Your task to perform on an android device: open a new tab in the chrome app Image 0: 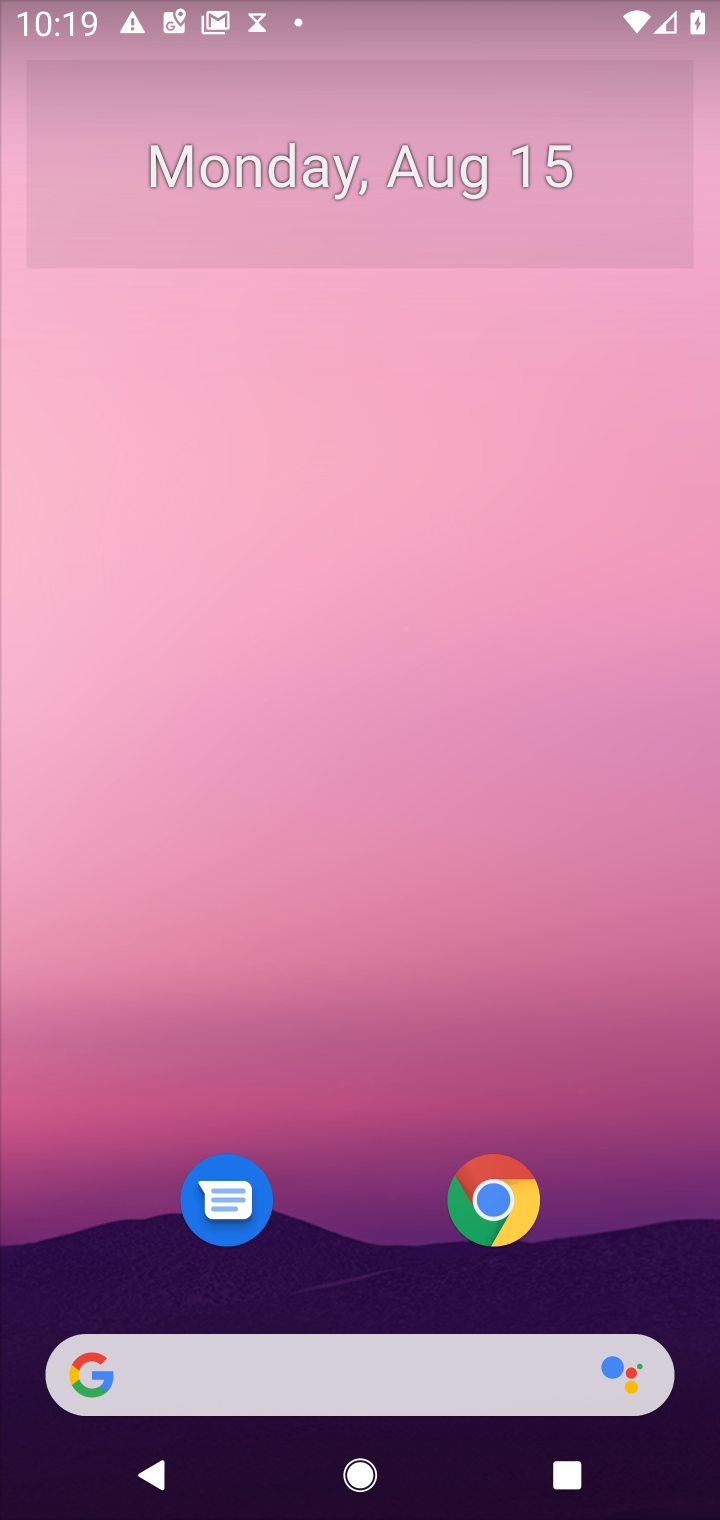
Step 0: click (488, 1207)
Your task to perform on an android device: open a new tab in the chrome app Image 1: 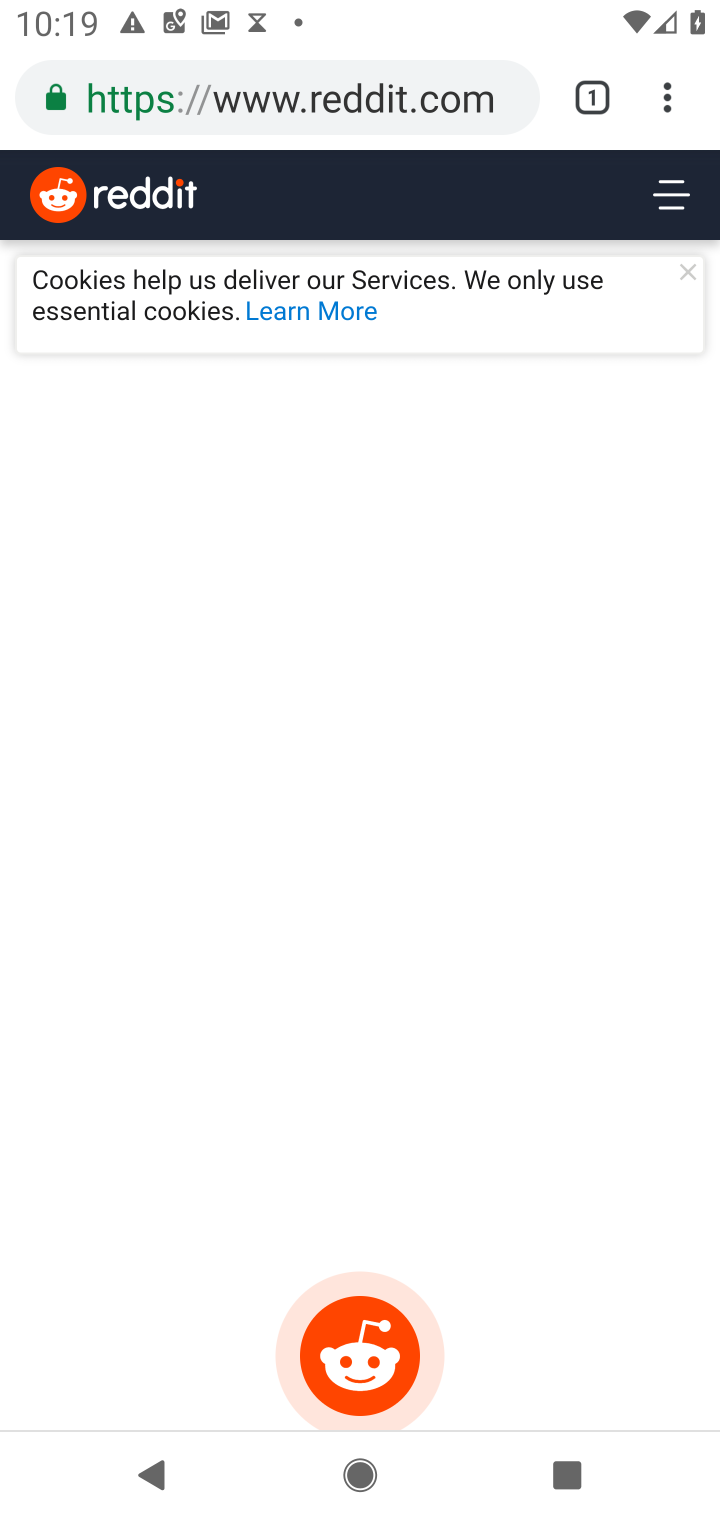
Step 1: click (573, 102)
Your task to perform on an android device: open a new tab in the chrome app Image 2: 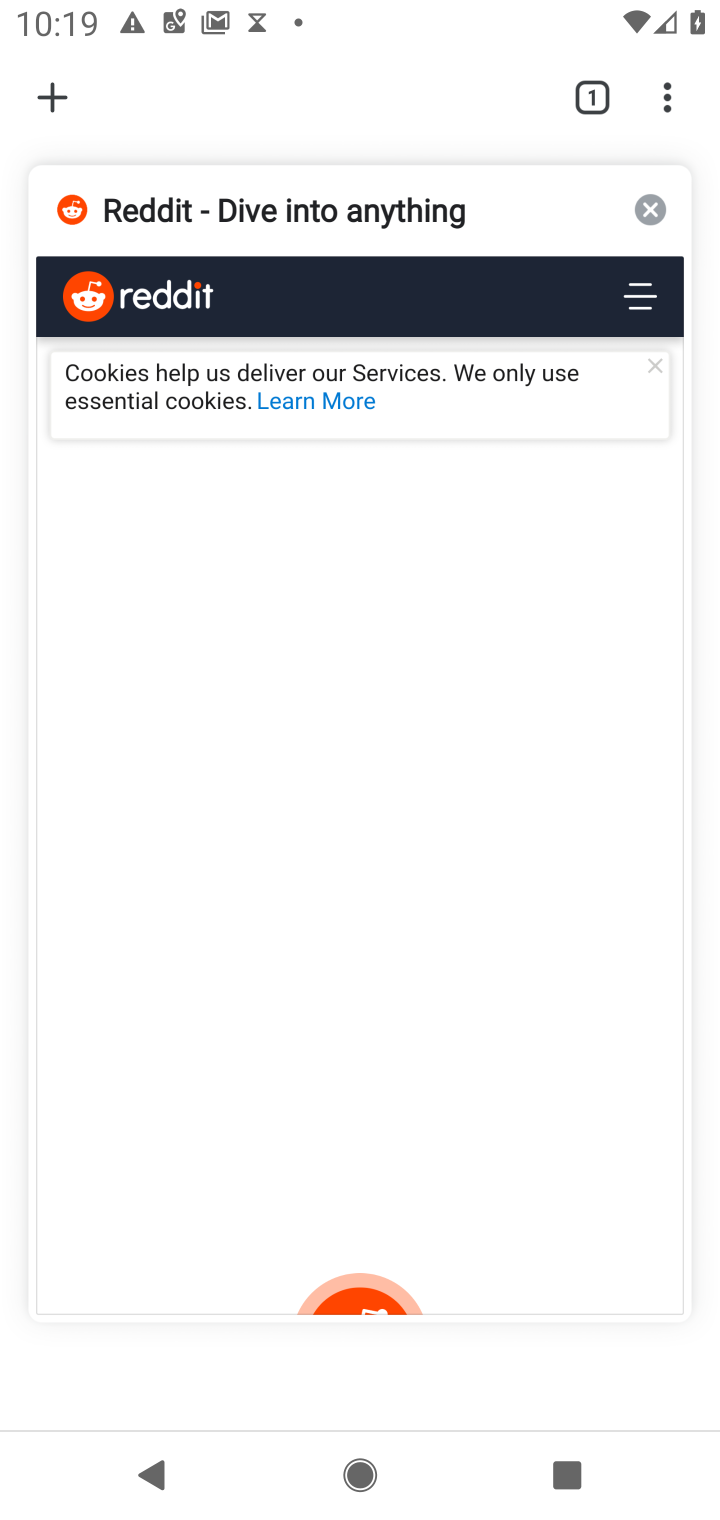
Step 2: click (68, 101)
Your task to perform on an android device: open a new tab in the chrome app Image 3: 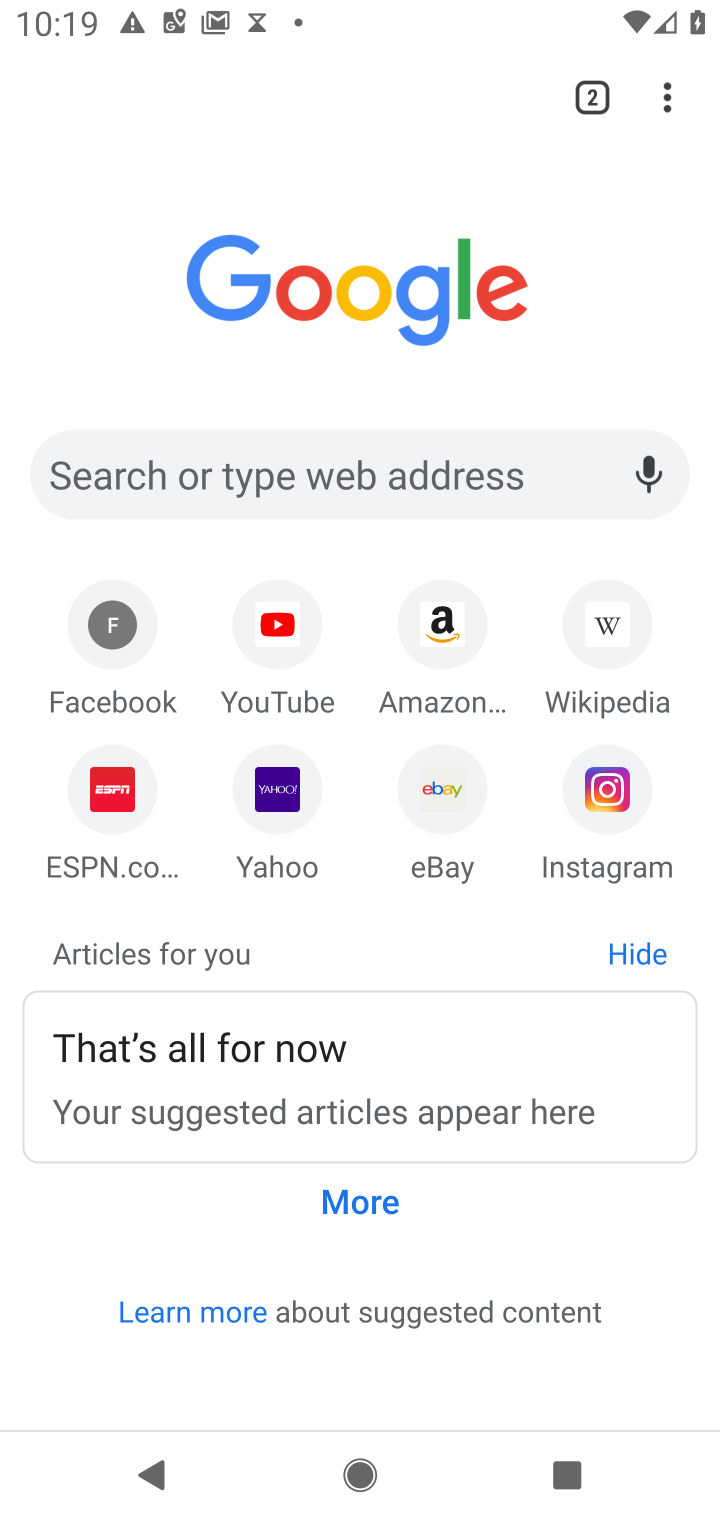
Step 3: task complete